Your task to perform on an android device: toggle wifi Image 0: 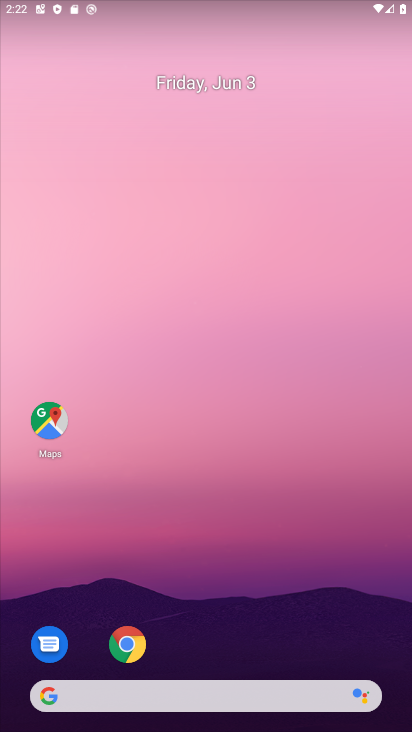
Step 0: drag from (228, 644) to (216, 149)
Your task to perform on an android device: toggle wifi Image 1: 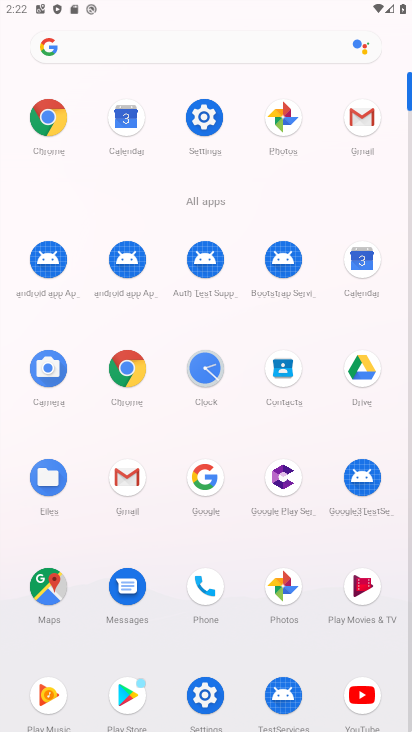
Step 1: click (204, 138)
Your task to perform on an android device: toggle wifi Image 2: 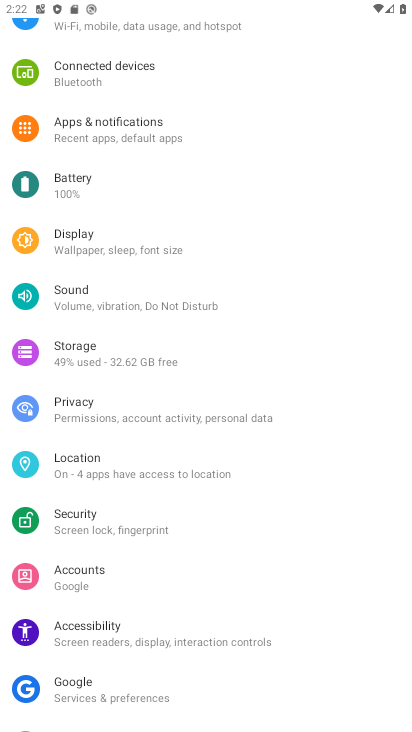
Step 2: drag from (184, 123) to (194, 442)
Your task to perform on an android device: toggle wifi Image 3: 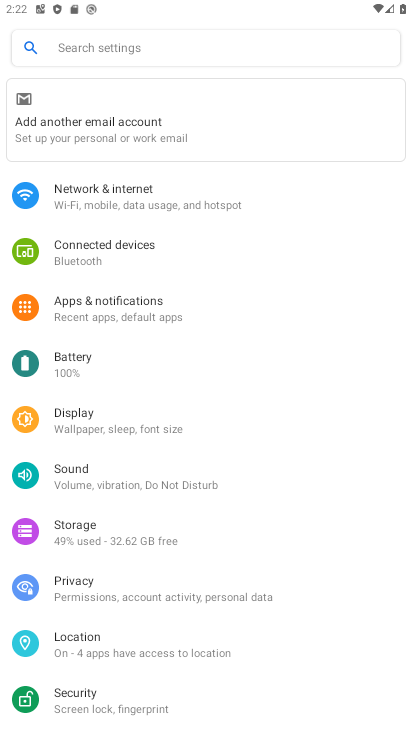
Step 3: click (157, 204)
Your task to perform on an android device: toggle wifi Image 4: 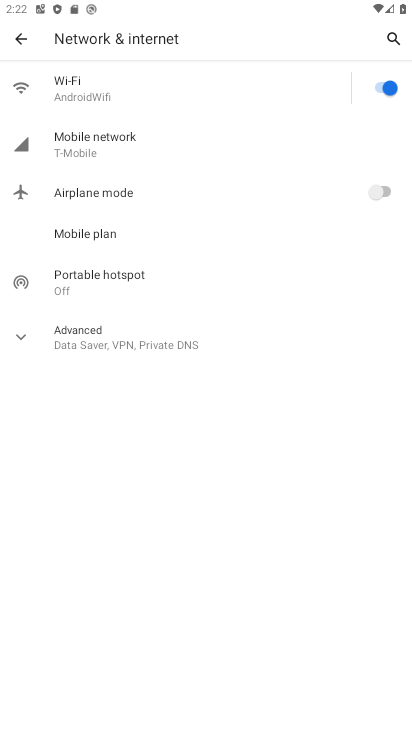
Step 4: click (378, 87)
Your task to perform on an android device: toggle wifi Image 5: 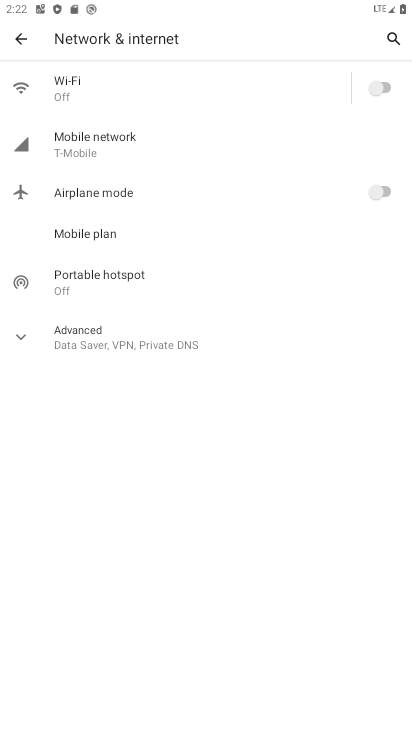
Step 5: task complete